Your task to perform on an android device: Search for vegetarian restaurants on Maps Image 0: 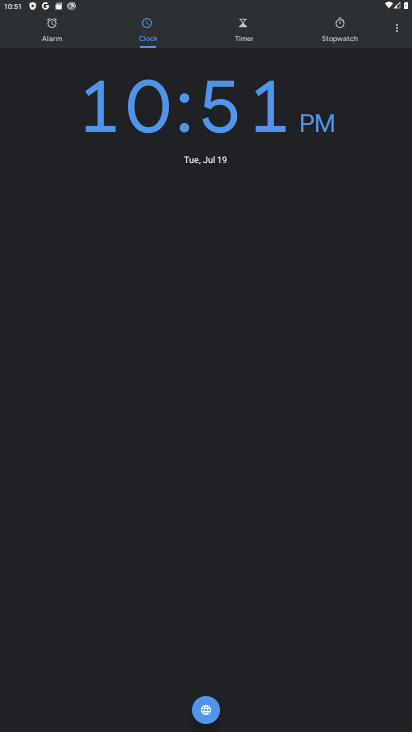
Step 0: press home button
Your task to perform on an android device: Search for vegetarian restaurants on Maps Image 1: 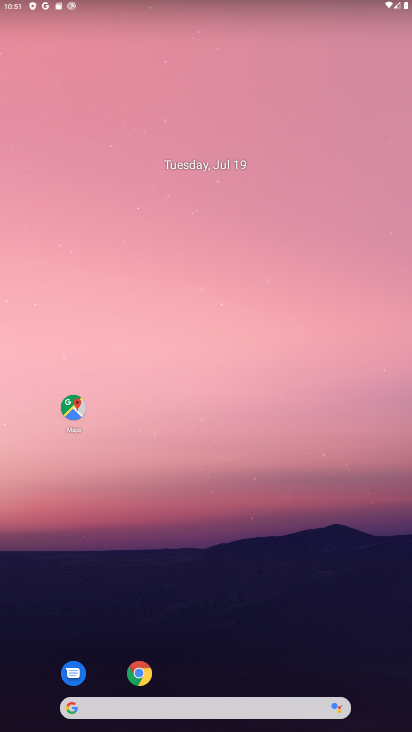
Step 1: click (72, 406)
Your task to perform on an android device: Search for vegetarian restaurants on Maps Image 2: 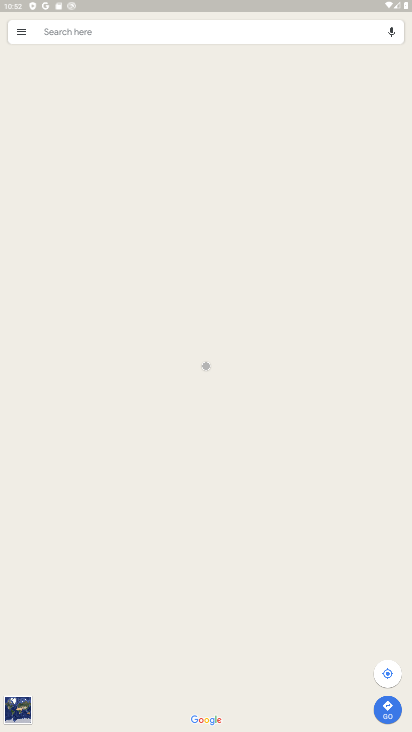
Step 2: click (64, 30)
Your task to perform on an android device: Search for vegetarian restaurants on Maps Image 3: 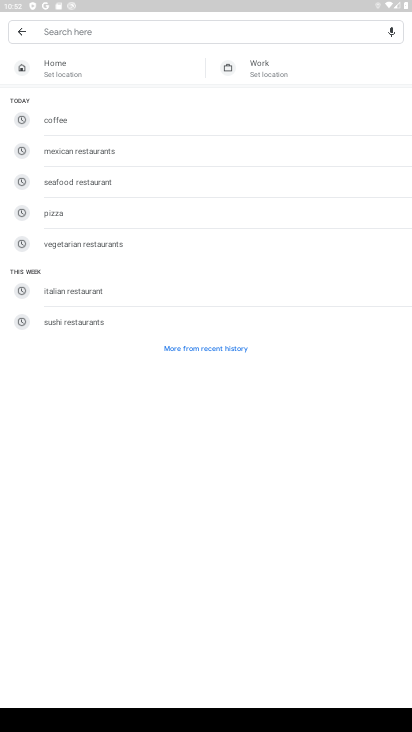
Step 3: type "vegetarian restaurants"
Your task to perform on an android device: Search for vegetarian restaurants on Maps Image 4: 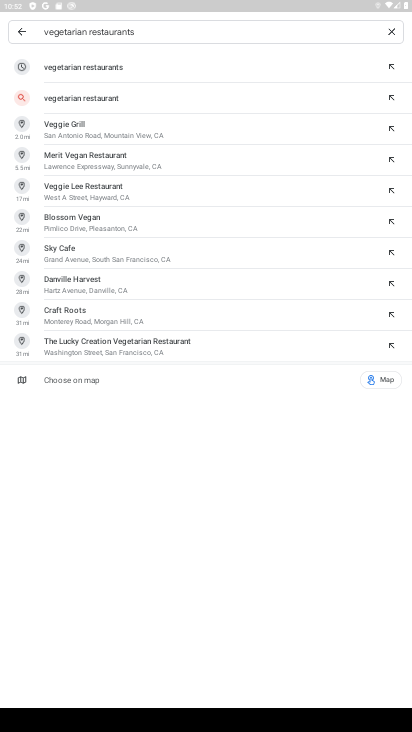
Step 4: click (89, 66)
Your task to perform on an android device: Search for vegetarian restaurants on Maps Image 5: 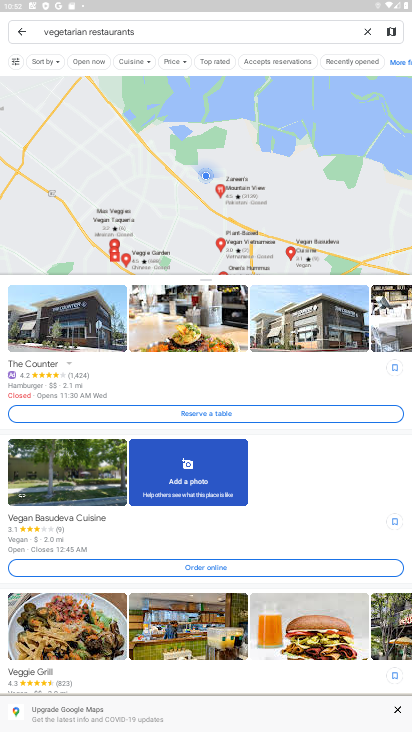
Step 5: task complete